Your task to perform on an android device: turn off smart reply in the gmail app Image 0: 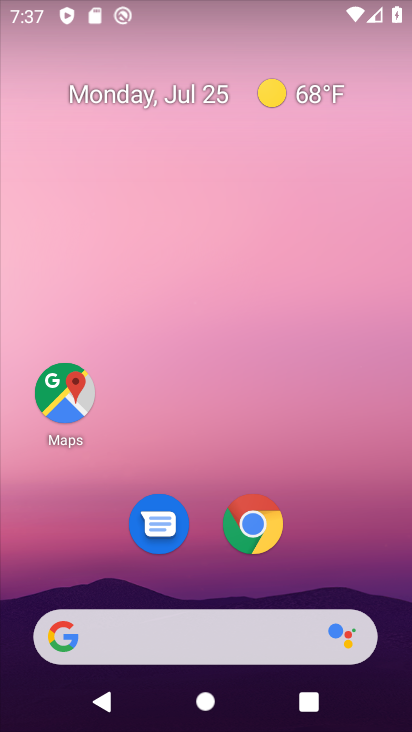
Step 0: drag from (203, 455) to (215, 27)
Your task to perform on an android device: turn off smart reply in the gmail app Image 1: 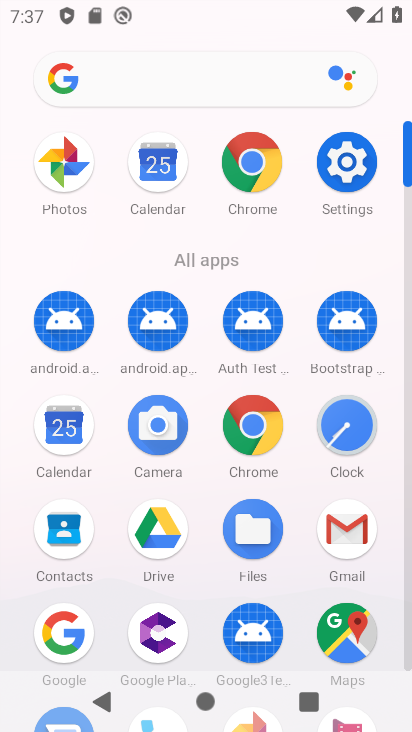
Step 1: click (344, 530)
Your task to perform on an android device: turn off smart reply in the gmail app Image 2: 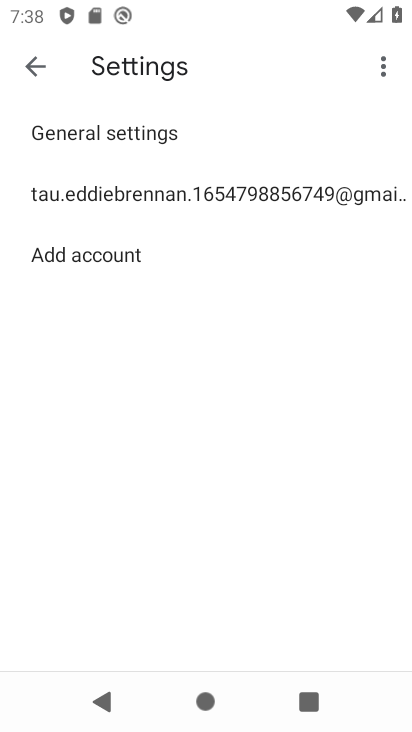
Step 2: click (116, 193)
Your task to perform on an android device: turn off smart reply in the gmail app Image 3: 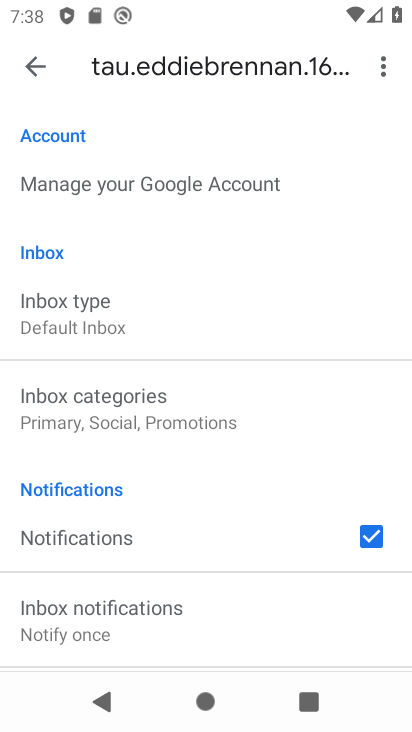
Step 3: drag from (186, 545) to (271, 35)
Your task to perform on an android device: turn off smart reply in the gmail app Image 4: 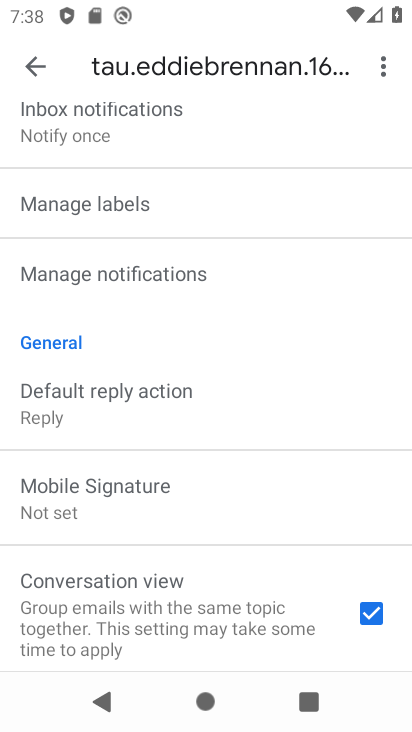
Step 4: drag from (269, 490) to (297, 147)
Your task to perform on an android device: turn off smart reply in the gmail app Image 5: 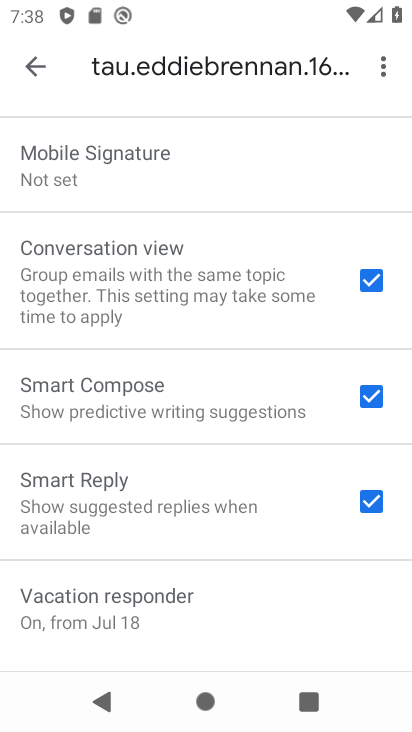
Step 5: click (376, 503)
Your task to perform on an android device: turn off smart reply in the gmail app Image 6: 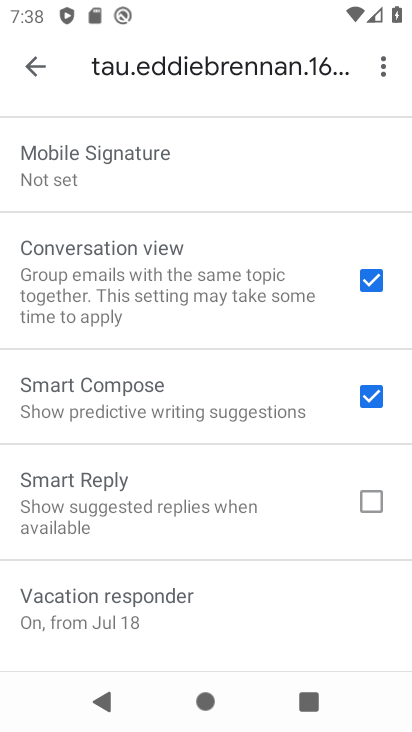
Step 6: task complete